Your task to perform on an android device: Go to ESPN.com Image 0: 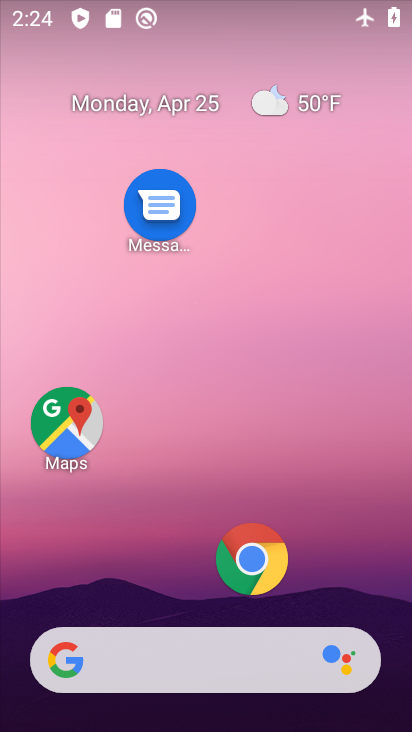
Step 0: click (271, 562)
Your task to perform on an android device: Go to ESPN.com Image 1: 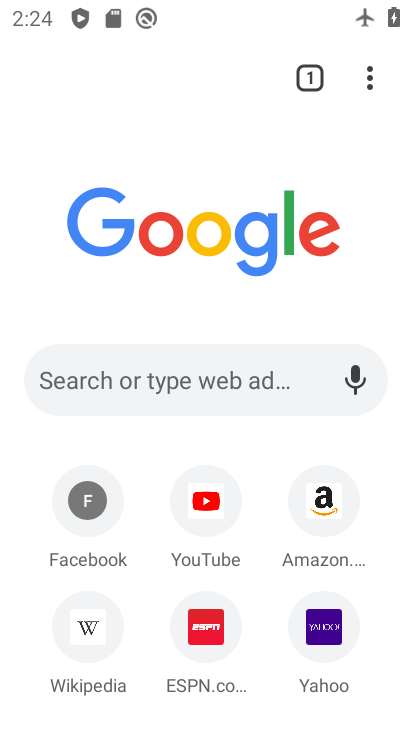
Step 1: click (202, 640)
Your task to perform on an android device: Go to ESPN.com Image 2: 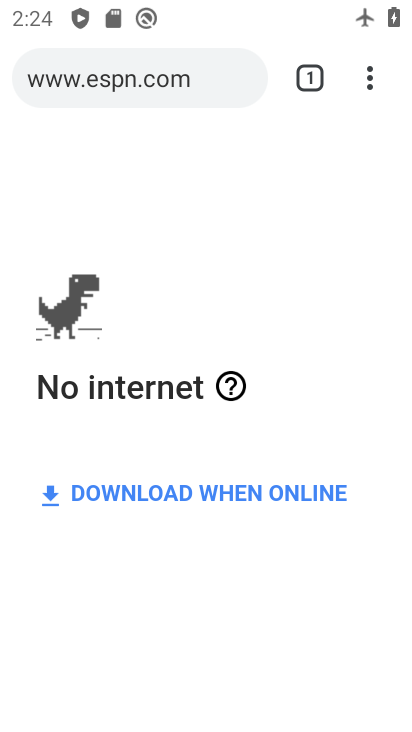
Step 2: task complete